Your task to perform on an android device: toggle data saver in the chrome app Image 0: 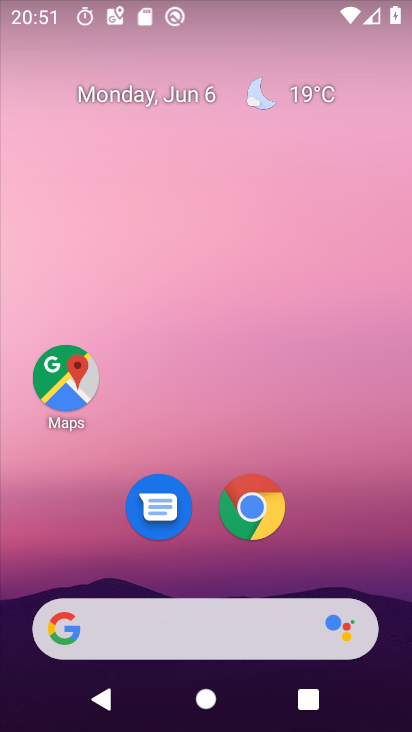
Step 0: press home button
Your task to perform on an android device: toggle data saver in the chrome app Image 1: 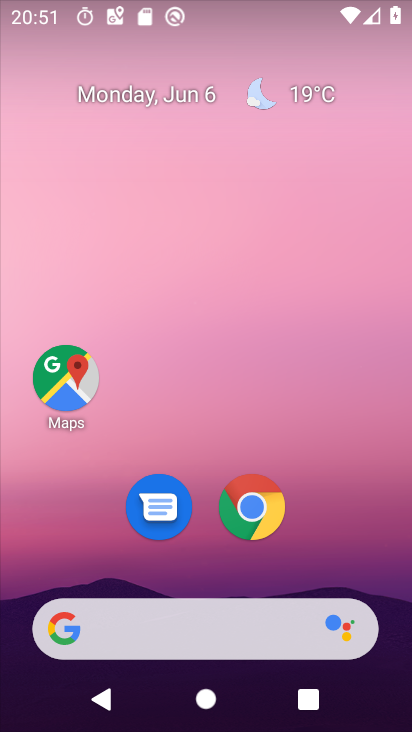
Step 1: click (268, 524)
Your task to perform on an android device: toggle data saver in the chrome app Image 2: 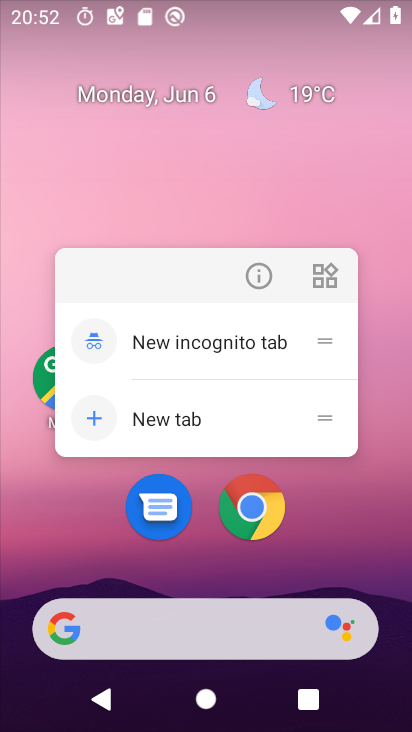
Step 2: click (240, 507)
Your task to perform on an android device: toggle data saver in the chrome app Image 3: 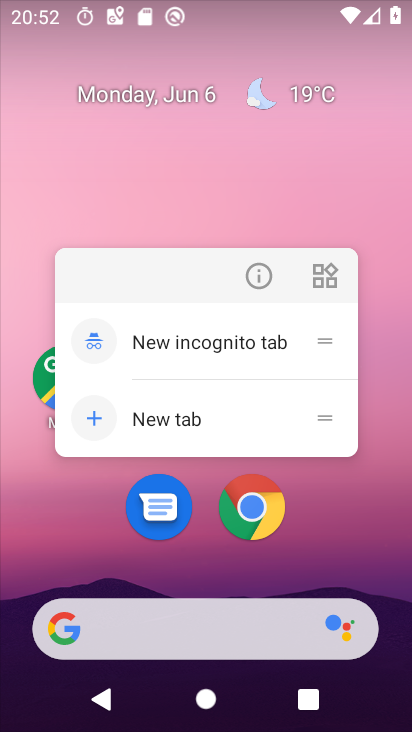
Step 3: click (287, 515)
Your task to perform on an android device: toggle data saver in the chrome app Image 4: 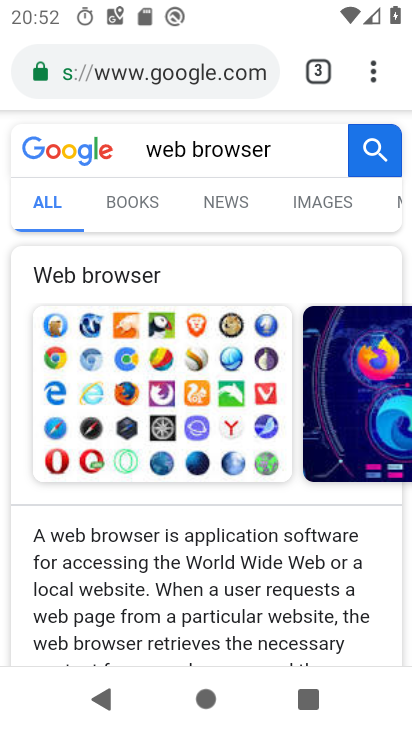
Step 4: drag from (374, 66) to (172, 511)
Your task to perform on an android device: toggle data saver in the chrome app Image 5: 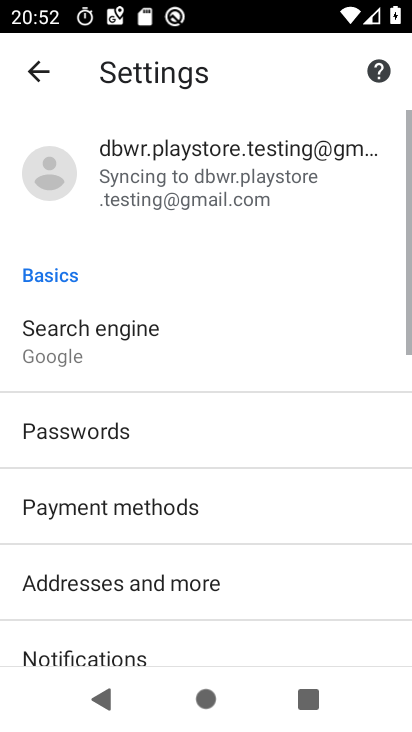
Step 5: drag from (268, 645) to (120, 122)
Your task to perform on an android device: toggle data saver in the chrome app Image 6: 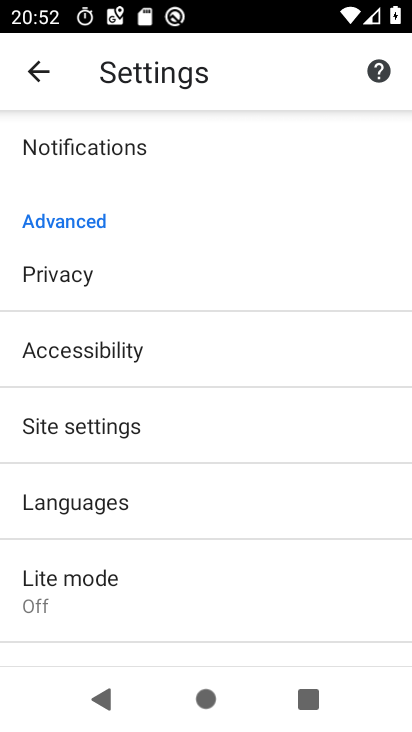
Step 6: click (101, 576)
Your task to perform on an android device: toggle data saver in the chrome app Image 7: 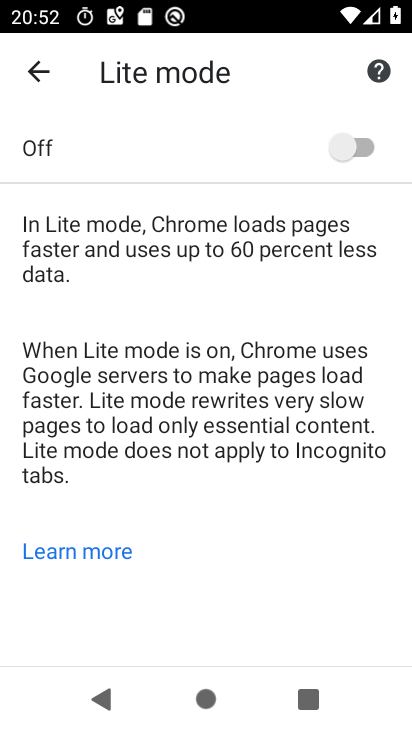
Step 7: click (213, 164)
Your task to perform on an android device: toggle data saver in the chrome app Image 8: 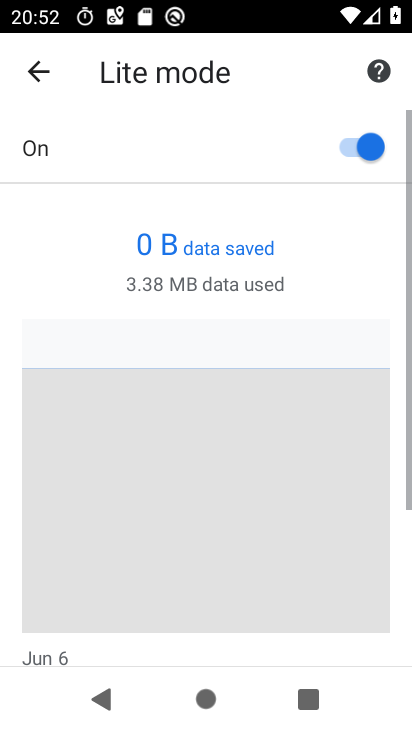
Step 8: task complete